Your task to perform on an android device: Go to calendar. Show me events next week Image 0: 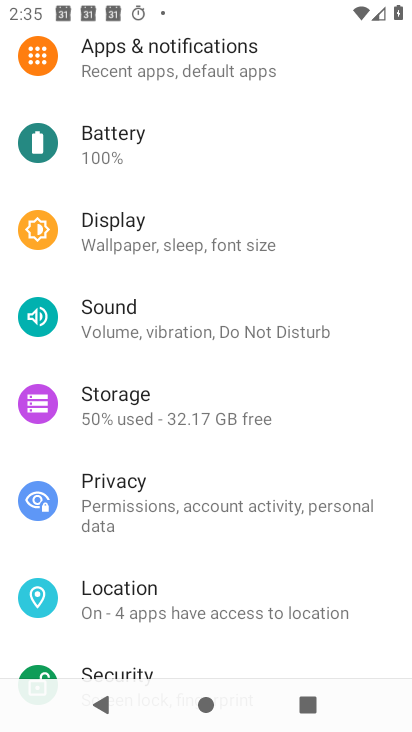
Step 0: drag from (120, 583) to (199, 108)
Your task to perform on an android device: Go to calendar. Show me events next week Image 1: 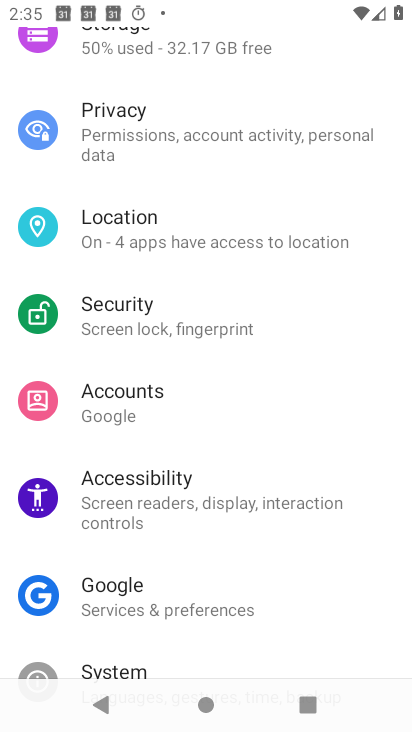
Step 1: drag from (192, 620) to (291, 311)
Your task to perform on an android device: Go to calendar. Show me events next week Image 2: 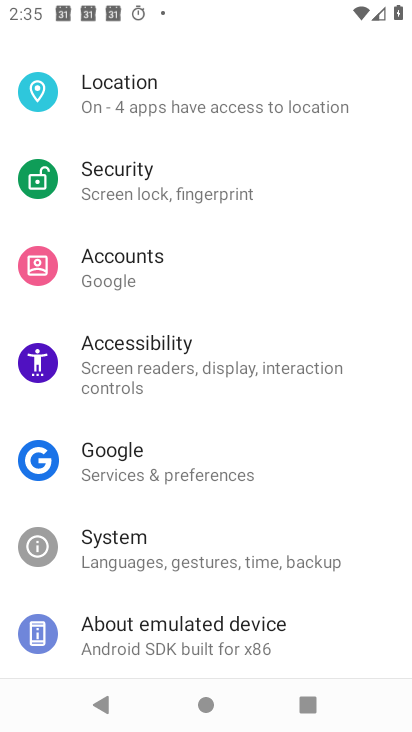
Step 2: press home button
Your task to perform on an android device: Go to calendar. Show me events next week Image 3: 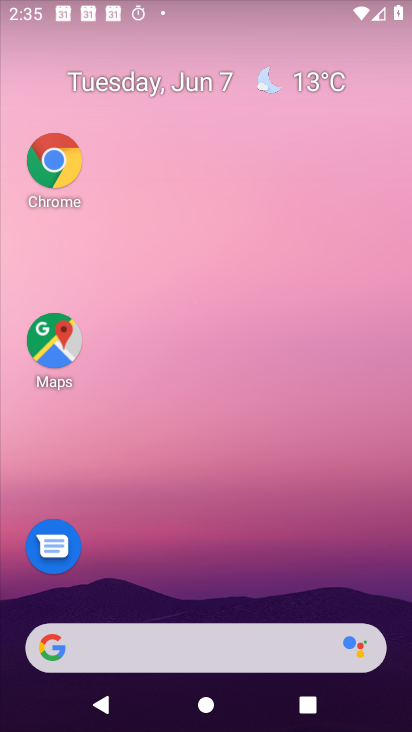
Step 3: drag from (195, 623) to (180, 102)
Your task to perform on an android device: Go to calendar. Show me events next week Image 4: 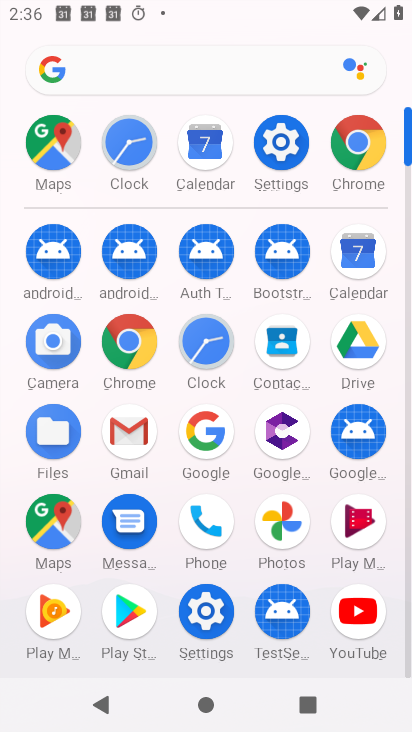
Step 4: click (355, 258)
Your task to perform on an android device: Go to calendar. Show me events next week Image 5: 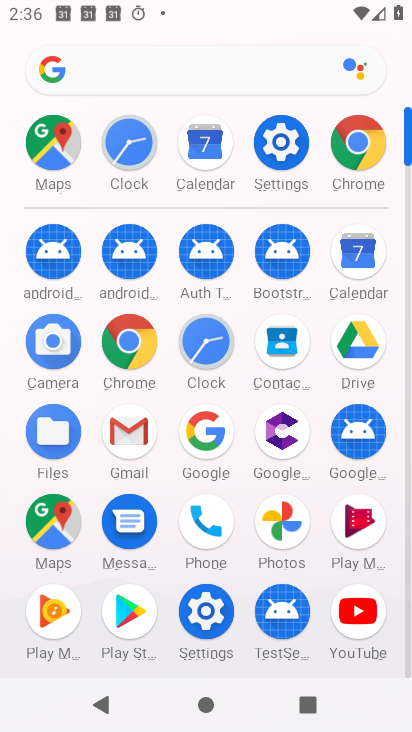
Step 5: click (355, 258)
Your task to perform on an android device: Go to calendar. Show me events next week Image 6: 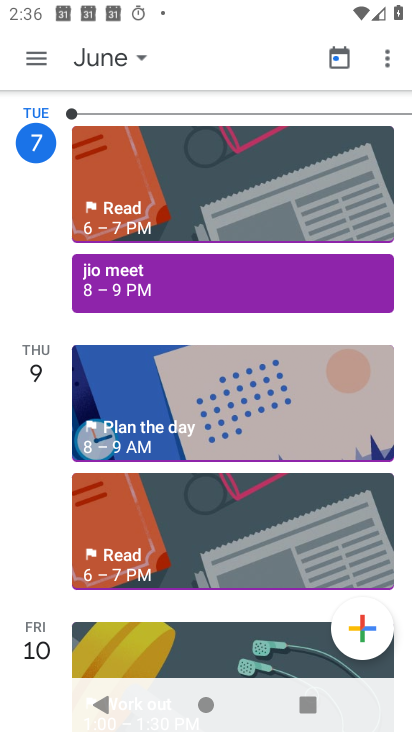
Step 6: click (108, 45)
Your task to perform on an android device: Go to calendar. Show me events next week Image 7: 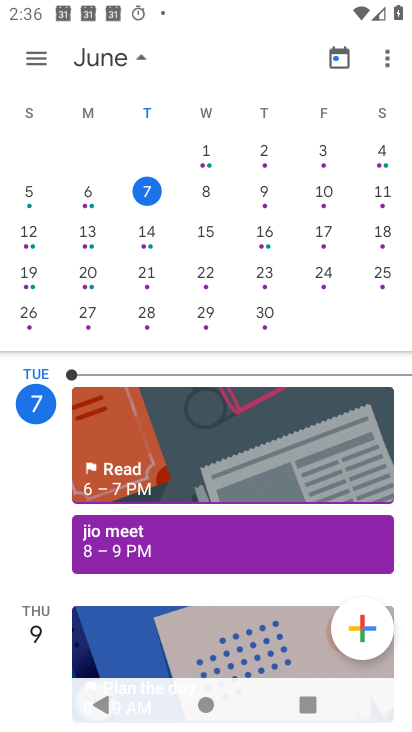
Step 7: click (204, 192)
Your task to perform on an android device: Go to calendar. Show me events next week Image 8: 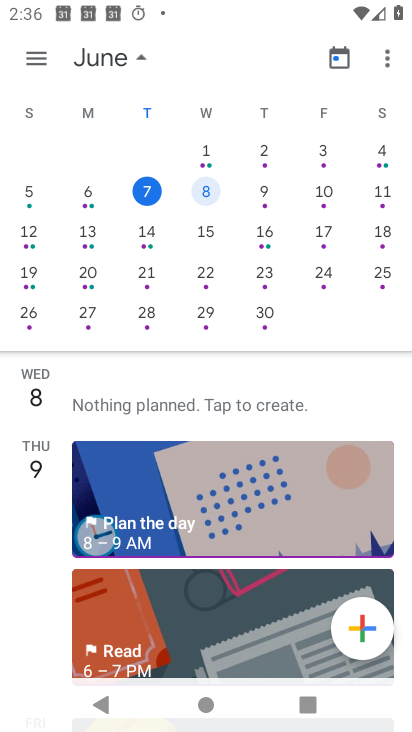
Step 8: click (262, 198)
Your task to perform on an android device: Go to calendar. Show me events next week Image 9: 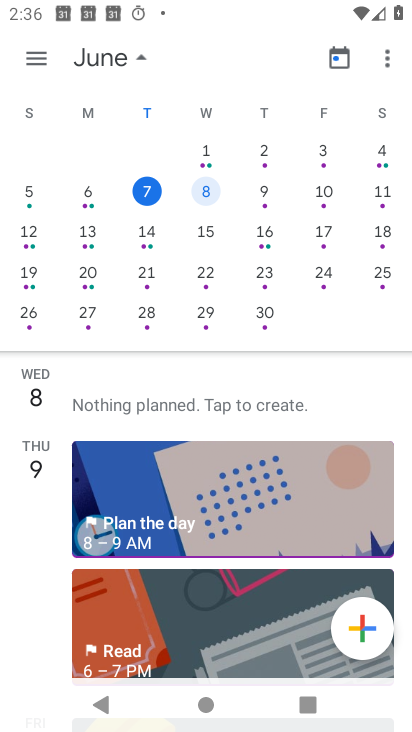
Step 9: click (263, 199)
Your task to perform on an android device: Go to calendar. Show me events next week Image 10: 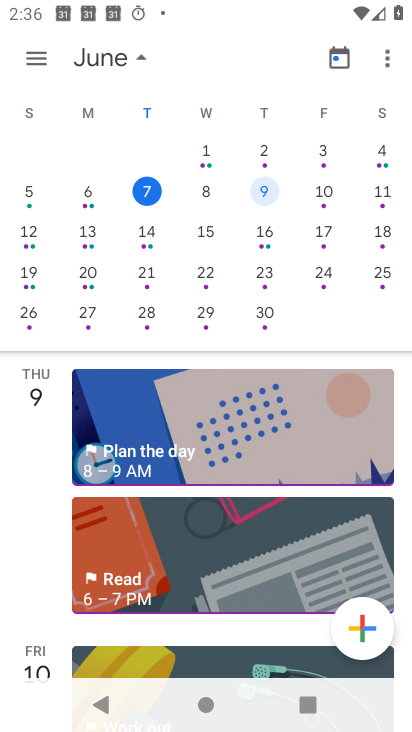
Step 10: task complete